Your task to perform on an android device: Open calendar and show me the second week of next month Image 0: 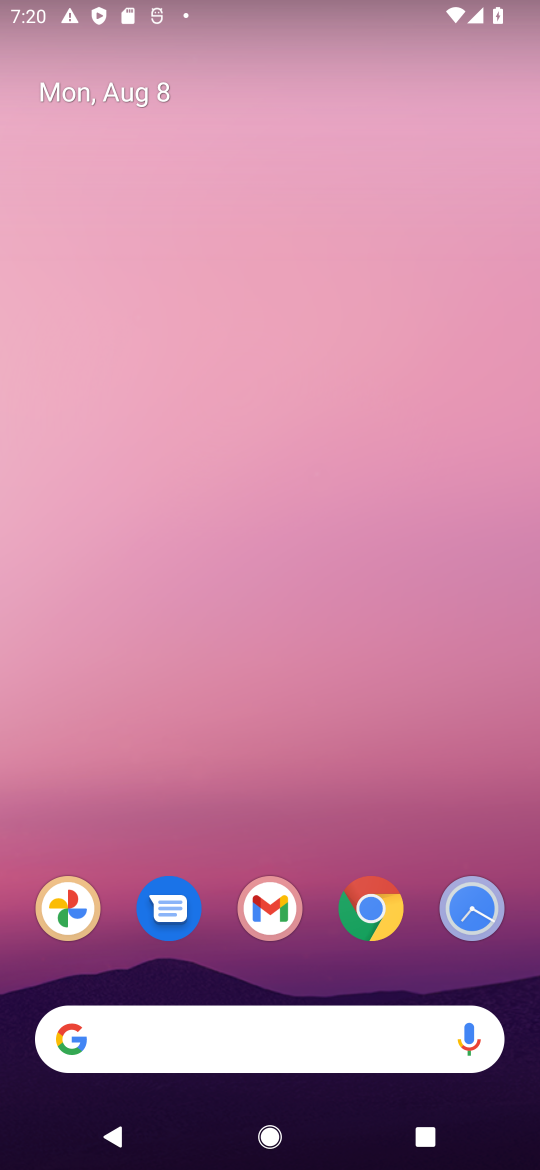
Step 0: click (83, 93)
Your task to perform on an android device: Open calendar and show me the second week of next month Image 1: 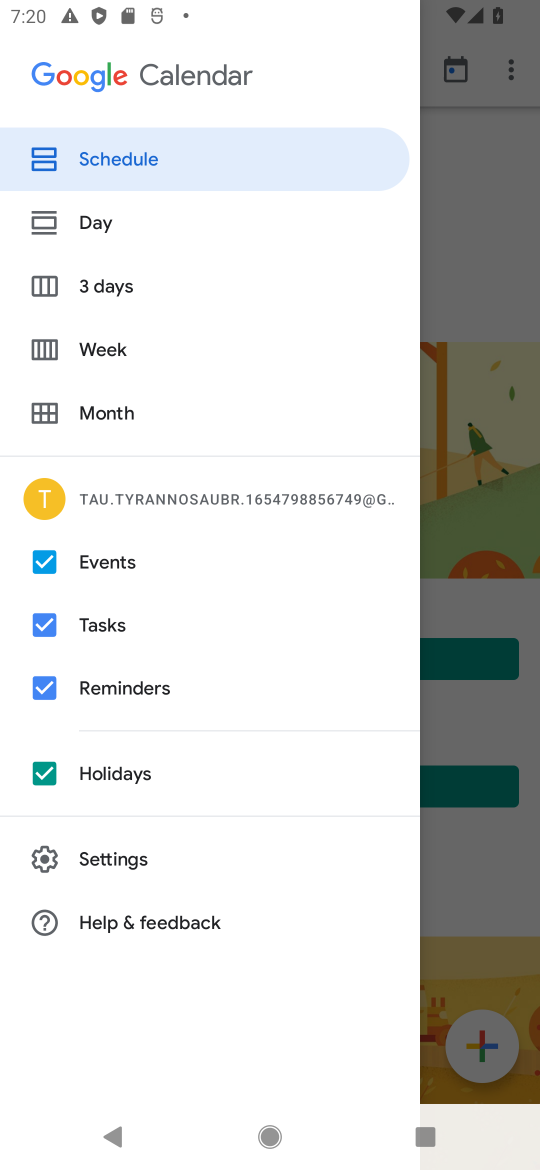
Step 1: click (509, 230)
Your task to perform on an android device: Open calendar and show me the second week of next month Image 2: 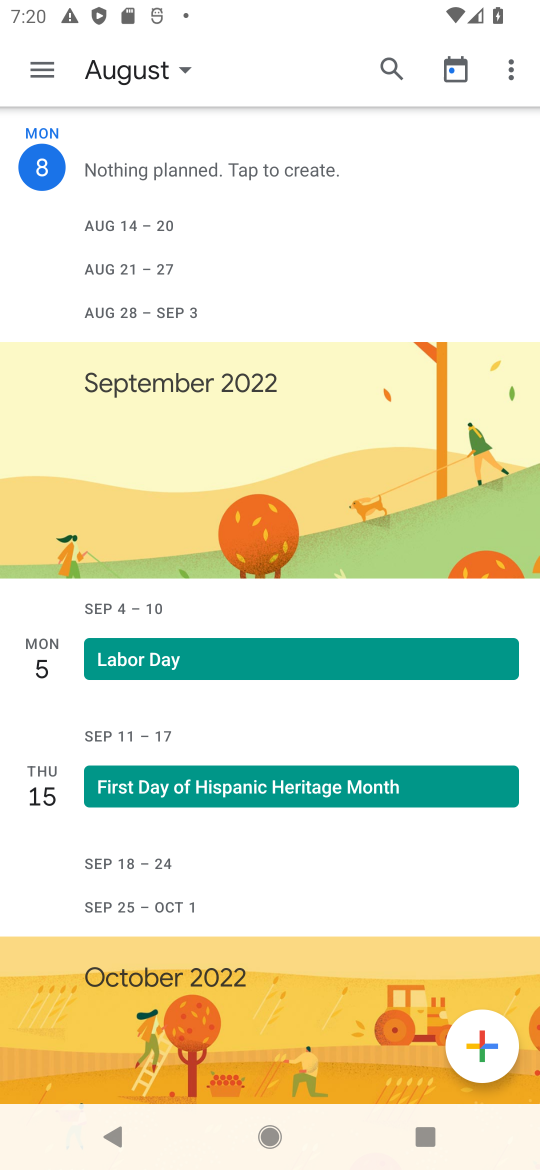
Step 2: click (187, 87)
Your task to perform on an android device: Open calendar and show me the second week of next month Image 3: 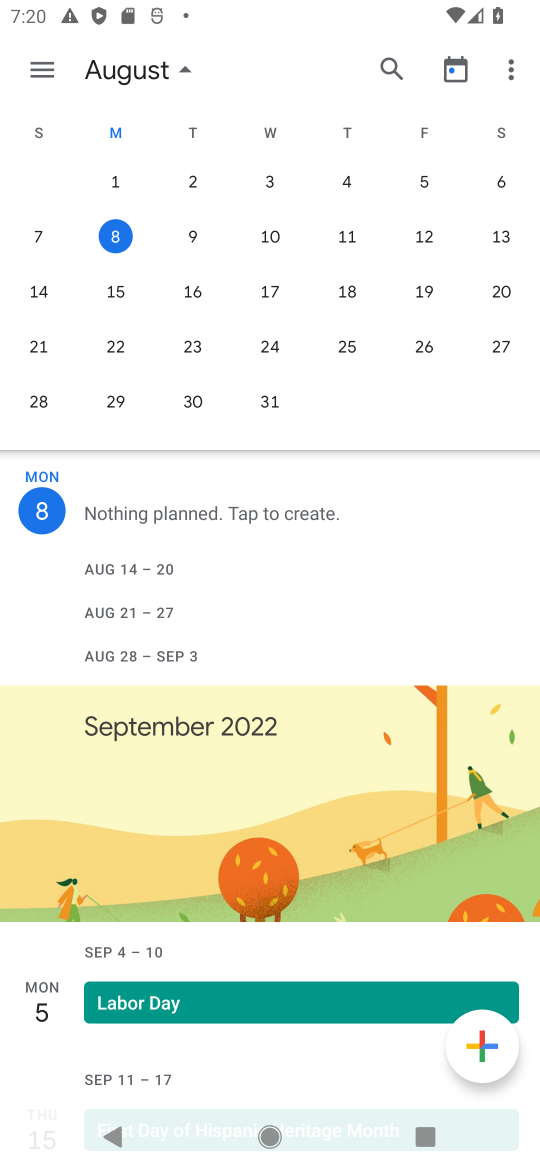
Step 3: drag from (450, 407) to (6, 495)
Your task to perform on an android device: Open calendar and show me the second week of next month Image 4: 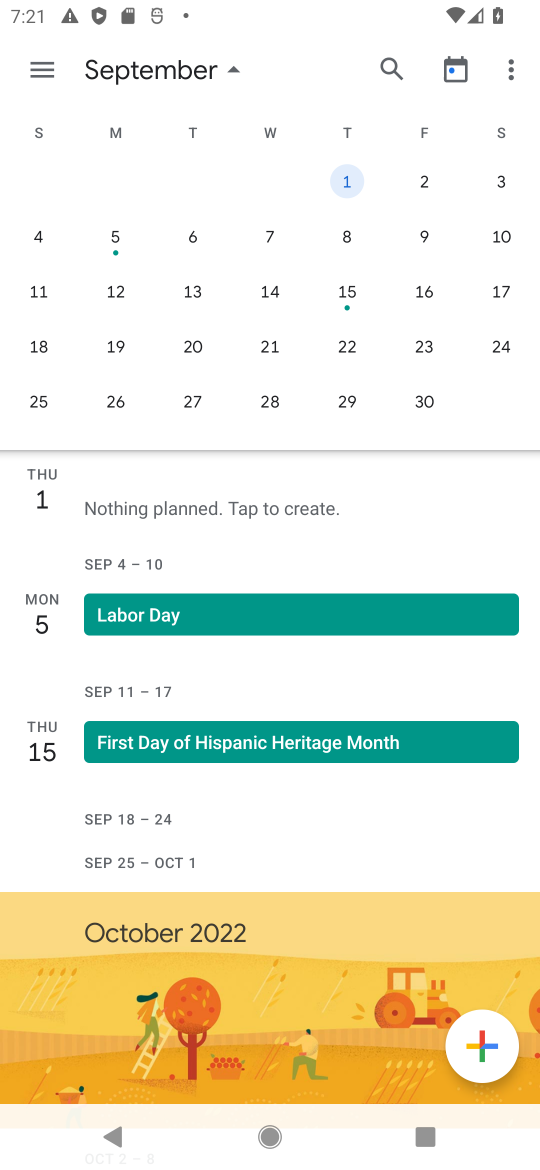
Step 4: drag from (492, 388) to (225, 354)
Your task to perform on an android device: Open calendar and show me the second week of next month Image 5: 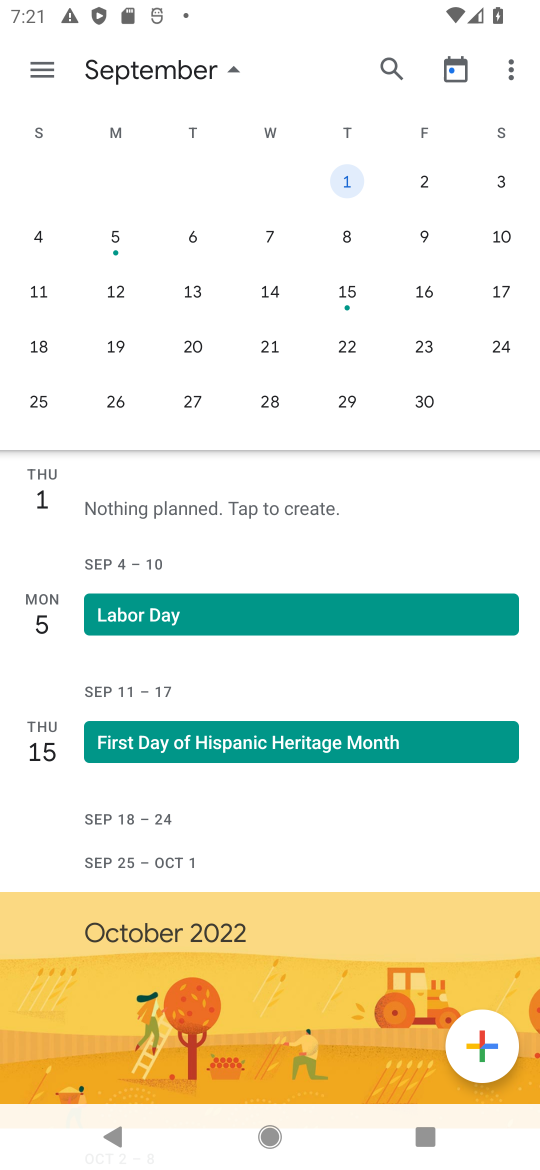
Step 5: click (275, 240)
Your task to perform on an android device: Open calendar and show me the second week of next month Image 6: 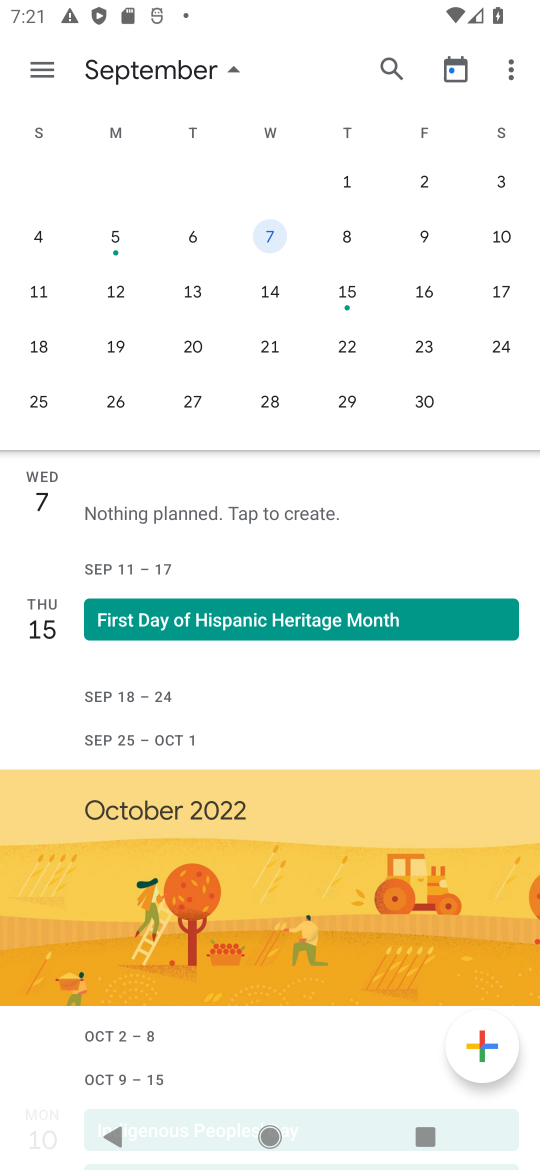
Step 6: task complete